Your task to perform on an android device: Do I have any events today? Image 0: 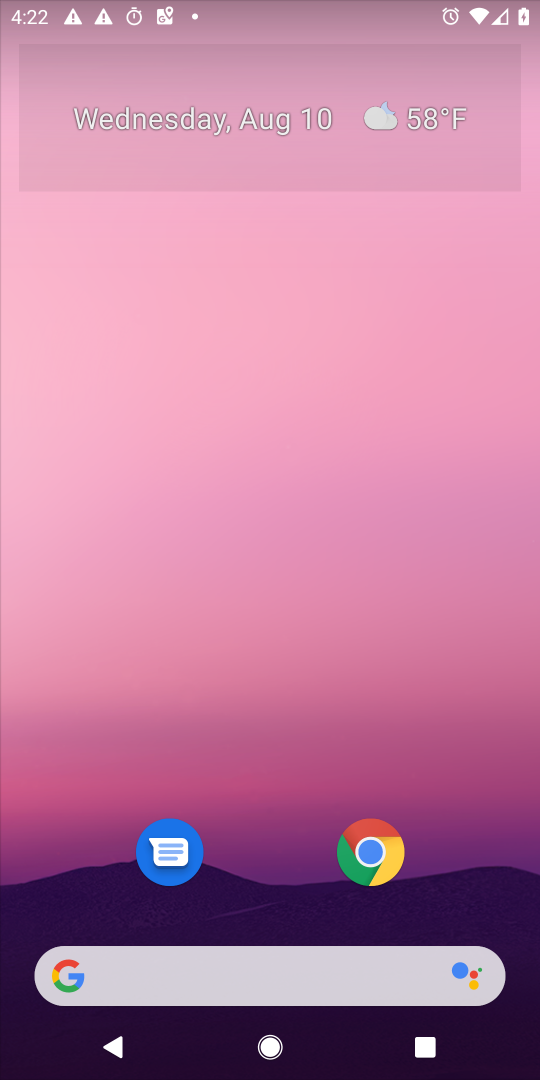
Step 0: click (94, 117)
Your task to perform on an android device: Do I have any events today? Image 1: 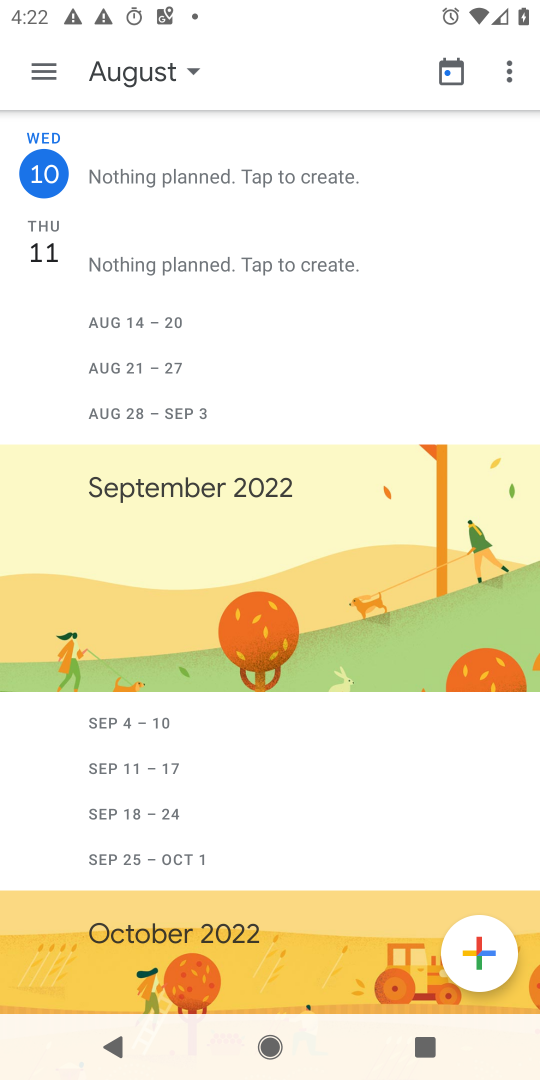
Step 1: task complete